Your task to perform on an android device: Open Google Maps Image 0: 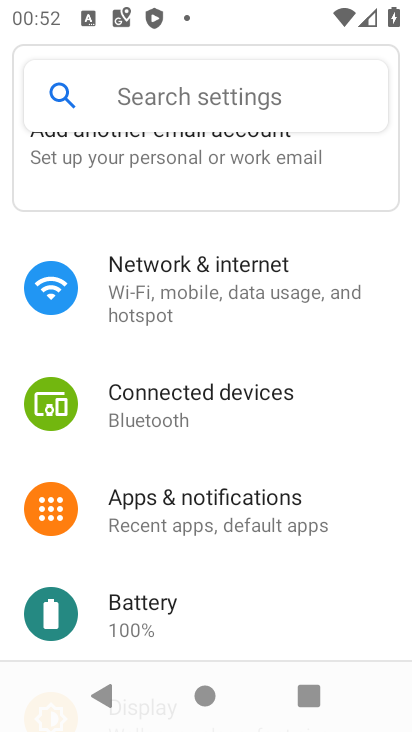
Step 0: press home button
Your task to perform on an android device: Open Google Maps Image 1: 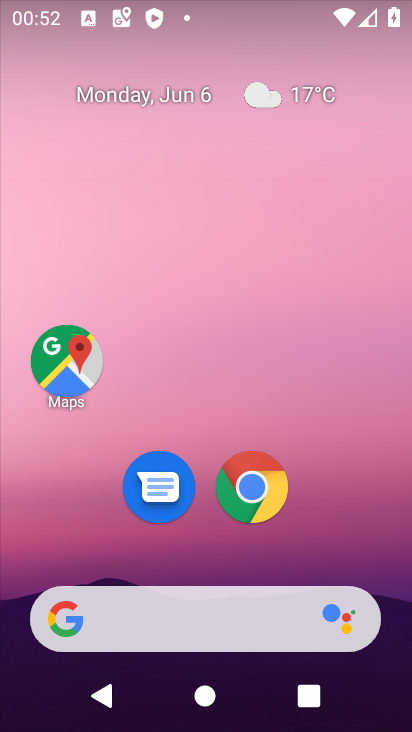
Step 1: click (73, 361)
Your task to perform on an android device: Open Google Maps Image 2: 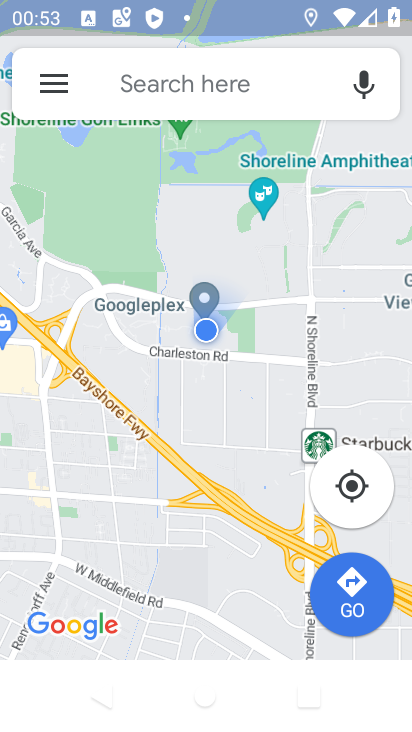
Step 2: task complete